Your task to perform on an android device: see creations saved in the google photos Image 0: 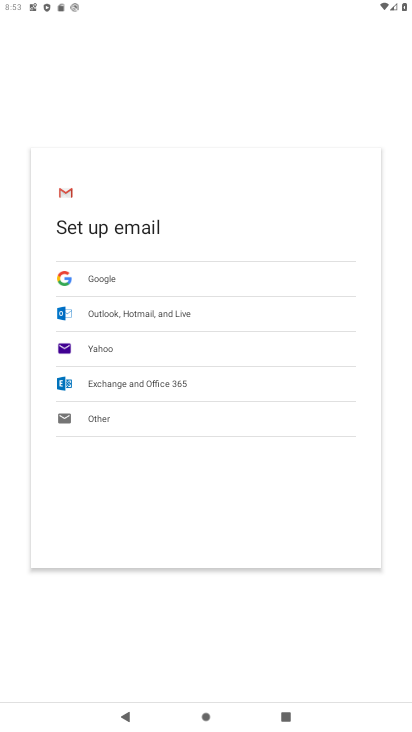
Step 0: press home button
Your task to perform on an android device: see creations saved in the google photos Image 1: 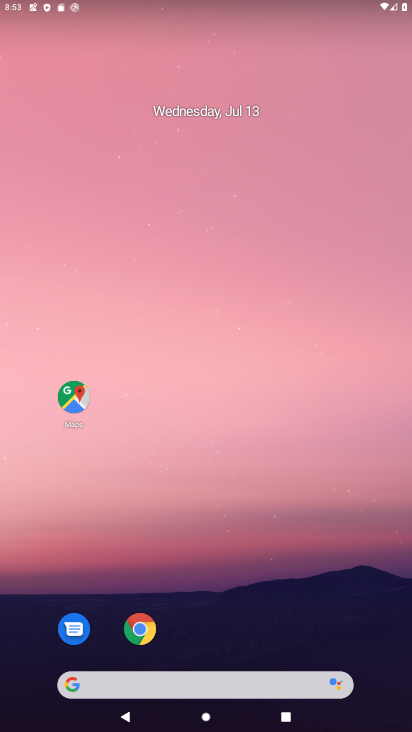
Step 1: drag from (252, 647) to (238, 121)
Your task to perform on an android device: see creations saved in the google photos Image 2: 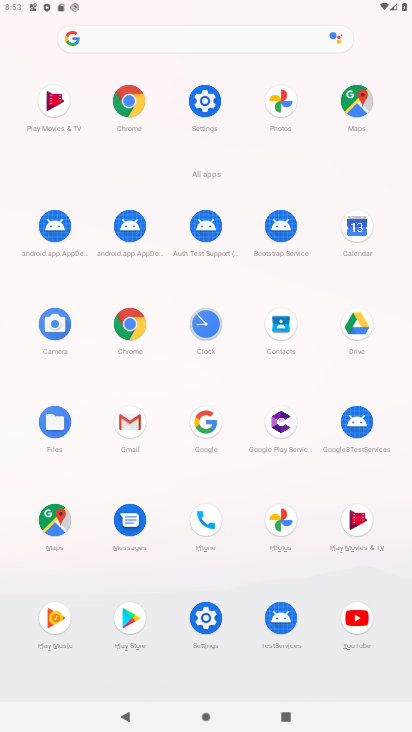
Step 2: click (289, 521)
Your task to perform on an android device: see creations saved in the google photos Image 3: 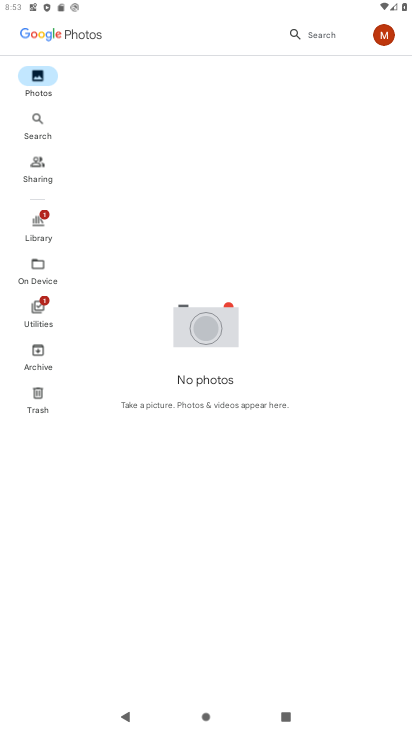
Step 3: click (289, 29)
Your task to perform on an android device: see creations saved in the google photos Image 4: 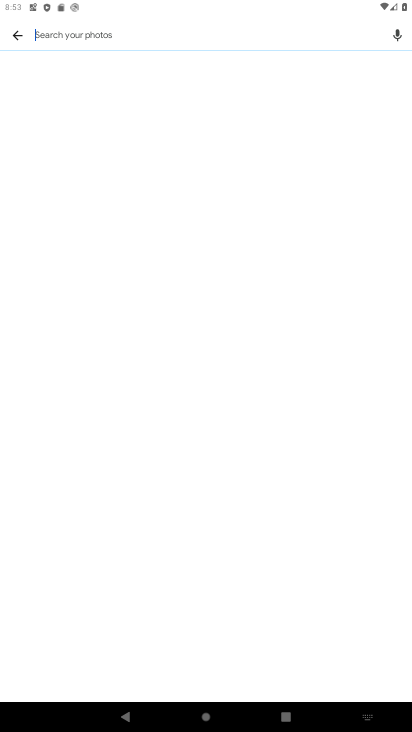
Step 4: click (140, 31)
Your task to perform on an android device: see creations saved in the google photos Image 5: 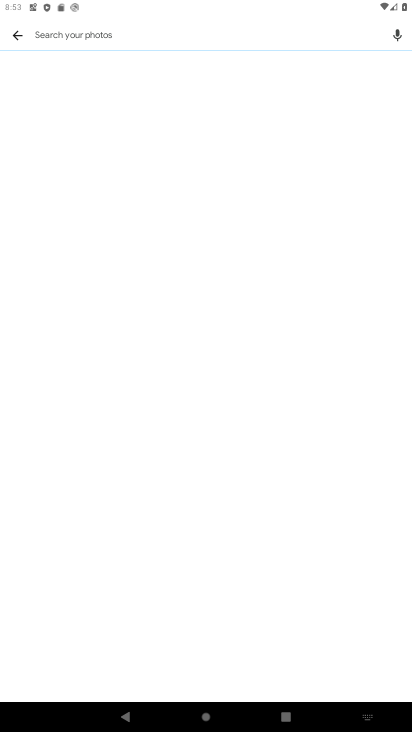
Step 5: click (14, 34)
Your task to perform on an android device: see creations saved in the google photos Image 6: 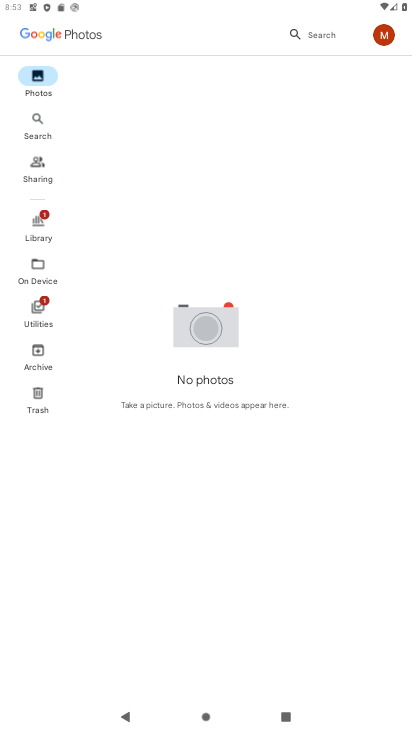
Step 6: click (383, 36)
Your task to perform on an android device: see creations saved in the google photos Image 7: 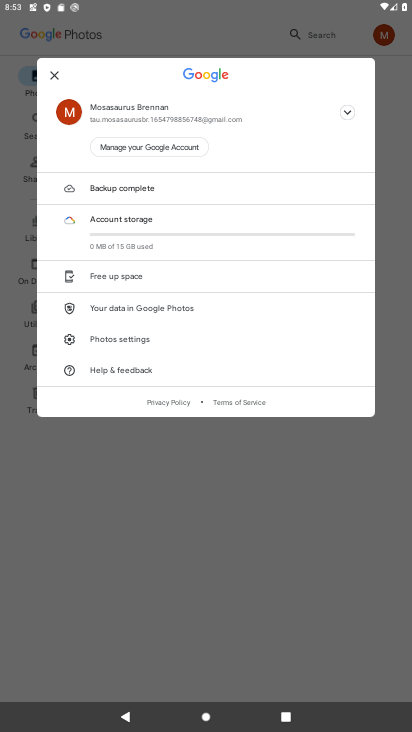
Step 7: click (120, 430)
Your task to perform on an android device: see creations saved in the google photos Image 8: 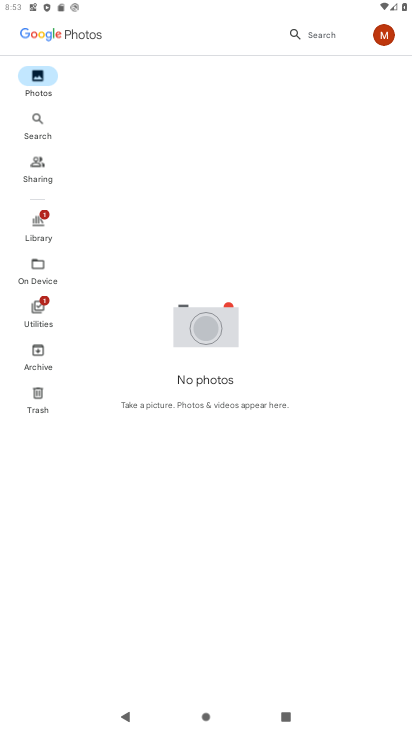
Step 8: click (303, 32)
Your task to perform on an android device: see creations saved in the google photos Image 9: 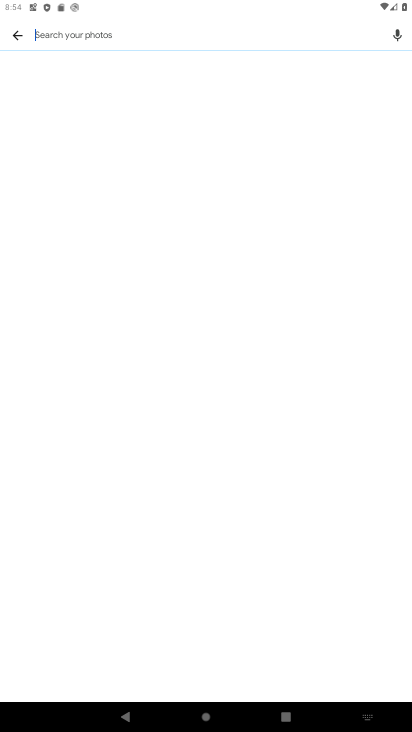
Step 9: click (10, 36)
Your task to perform on an android device: see creations saved in the google photos Image 10: 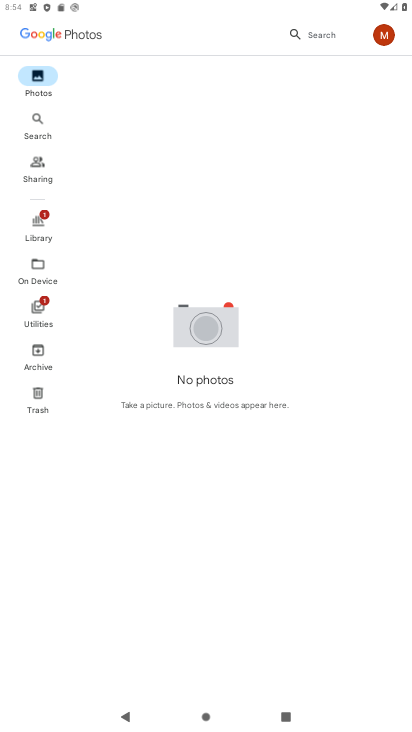
Step 10: click (27, 135)
Your task to perform on an android device: see creations saved in the google photos Image 11: 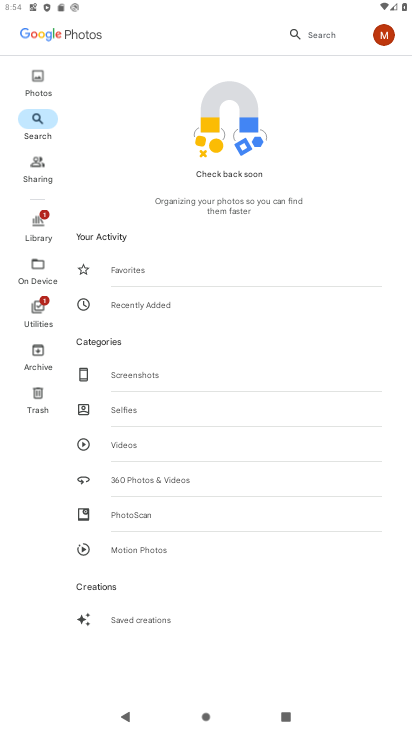
Step 11: click (135, 620)
Your task to perform on an android device: see creations saved in the google photos Image 12: 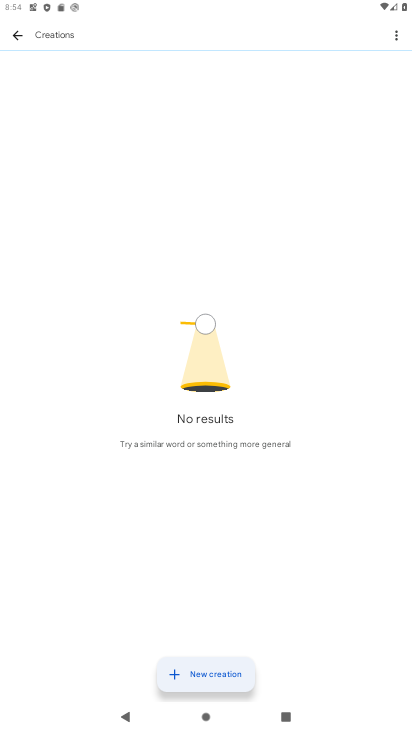
Step 12: task complete